Your task to perform on an android device: turn on sleep mode Image 0: 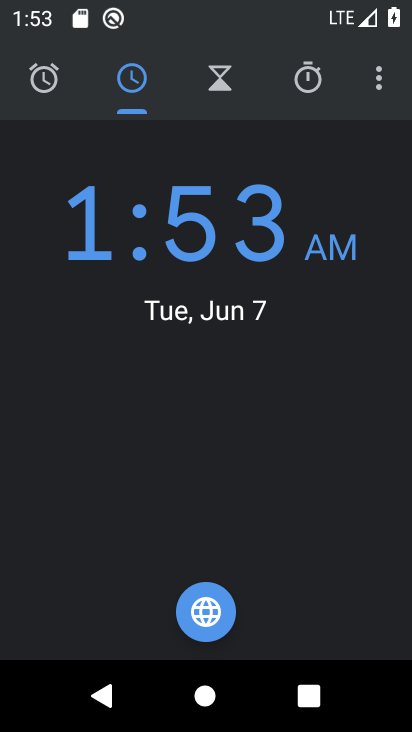
Step 0: press home button
Your task to perform on an android device: turn on sleep mode Image 1: 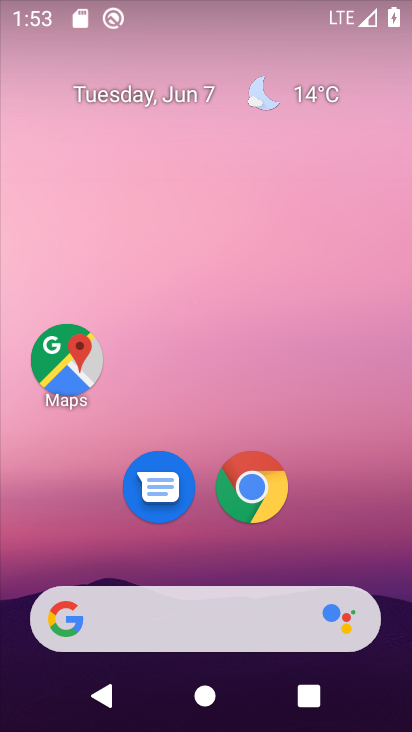
Step 1: drag from (221, 559) to (398, 89)
Your task to perform on an android device: turn on sleep mode Image 2: 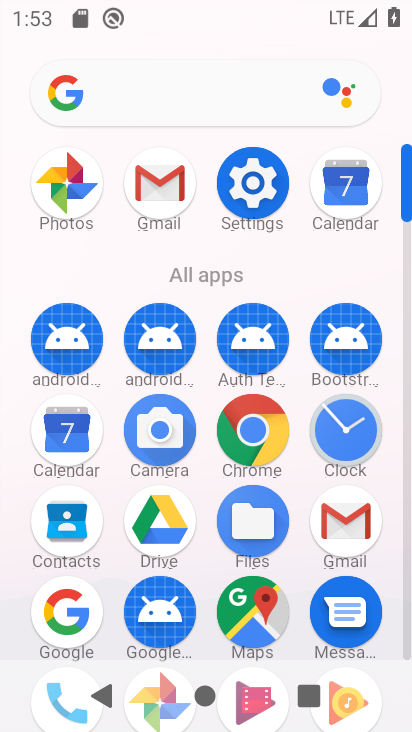
Step 2: click (232, 207)
Your task to perform on an android device: turn on sleep mode Image 3: 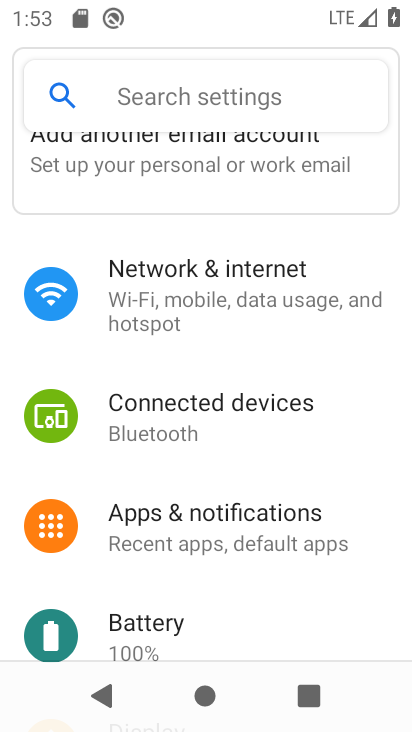
Step 3: drag from (171, 483) to (144, 149)
Your task to perform on an android device: turn on sleep mode Image 4: 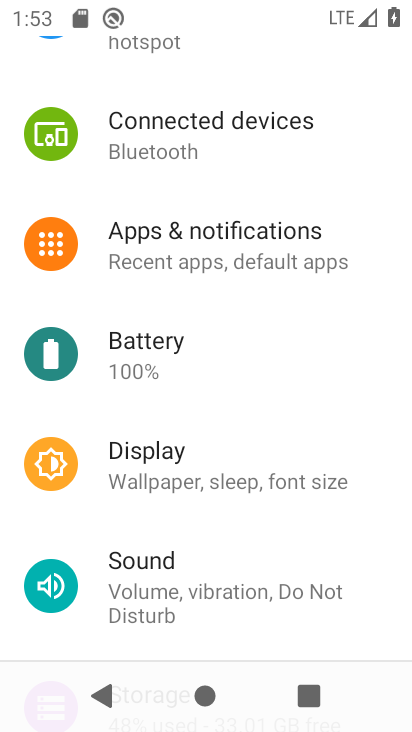
Step 4: click (160, 473)
Your task to perform on an android device: turn on sleep mode Image 5: 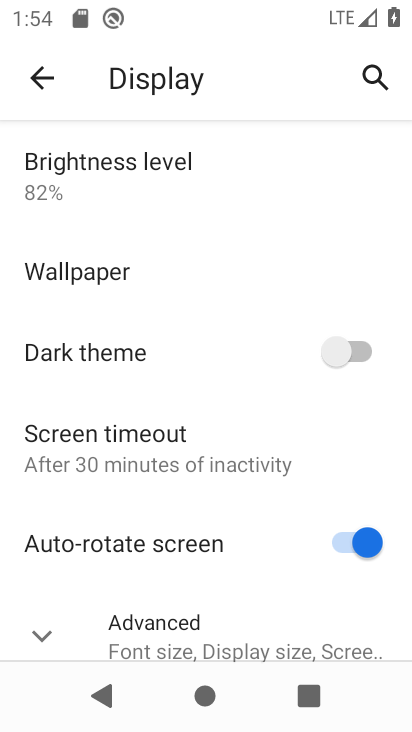
Step 5: task complete